Your task to perform on an android device: Search for seafood restaurants on Google Maps Image 0: 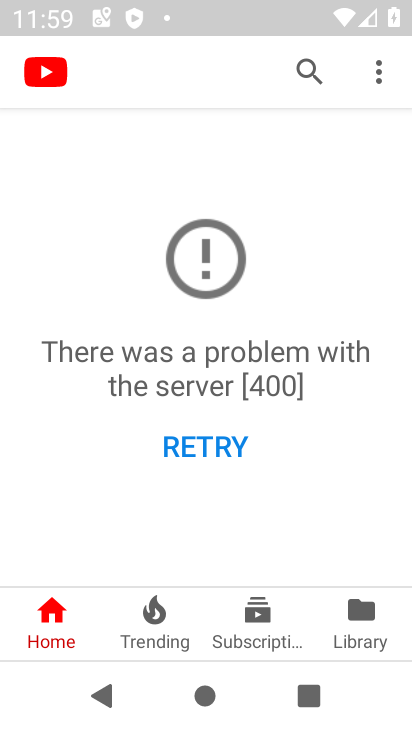
Step 0: press home button
Your task to perform on an android device: Search for seafood restaurants on Google Maps Image 1: 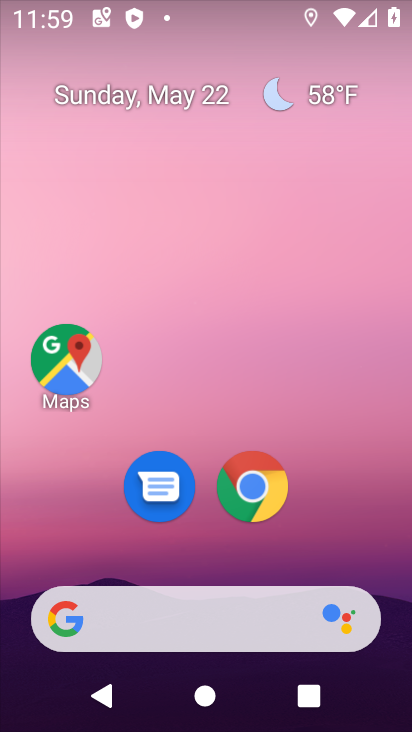
Step 1: click (61, 362)
Your task to perform on an android device: Search for seafood restaurants on Google Maps Image 2: 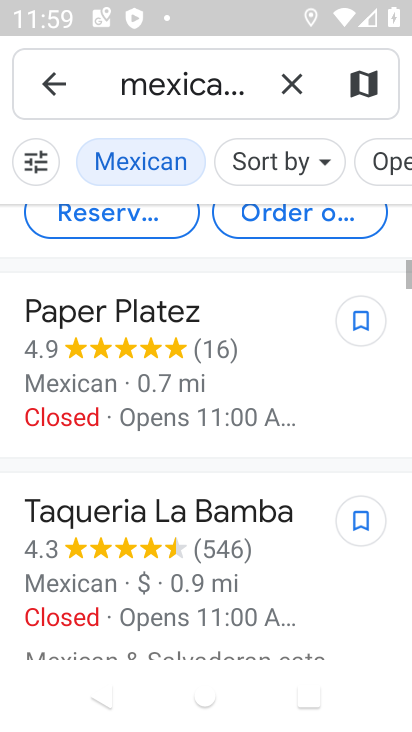
Step 2: click (285, 87)
Your task to perform on an android device: Search for seafood restaurants on Google Maps Image 3: 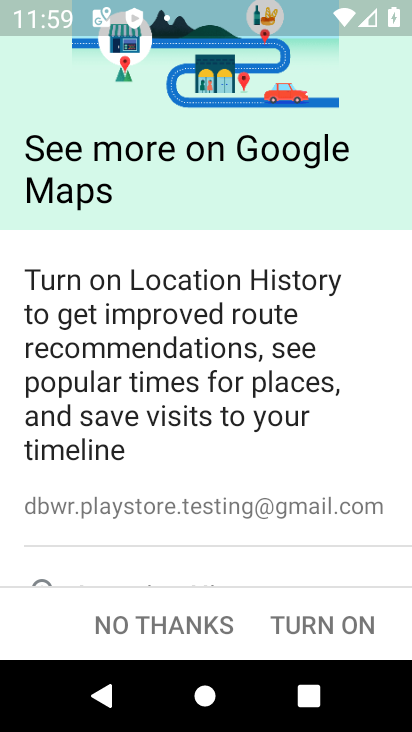
Step 3: click (186, 621)
Your task to perform on an android device: Search for seafood restaurants on Google Maps Image 4: 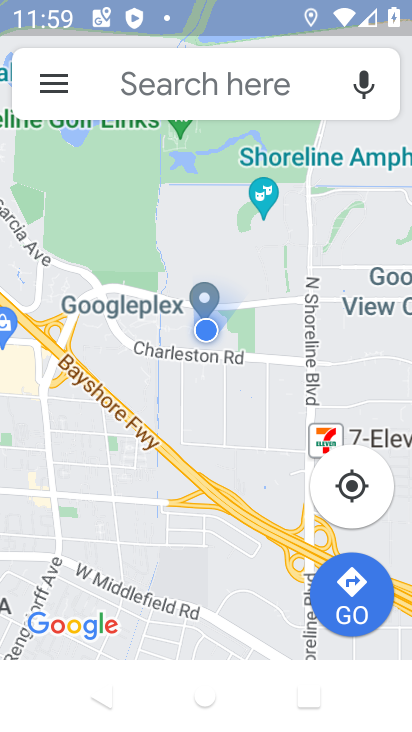
Step 4: click (155, 81)
Your task to perform on an android device: Search for seafood restaurants on Google Maps Image 5: 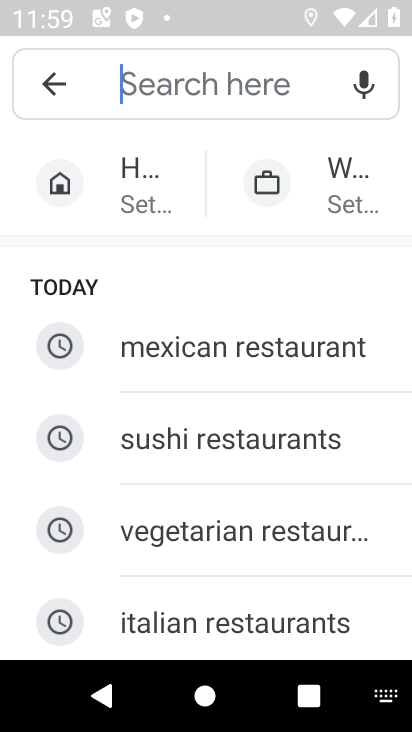
Step 5: type "seafood restaurants"
Your task to perform on an android device: Search for seafood restaurants on Google Maps Image 6: 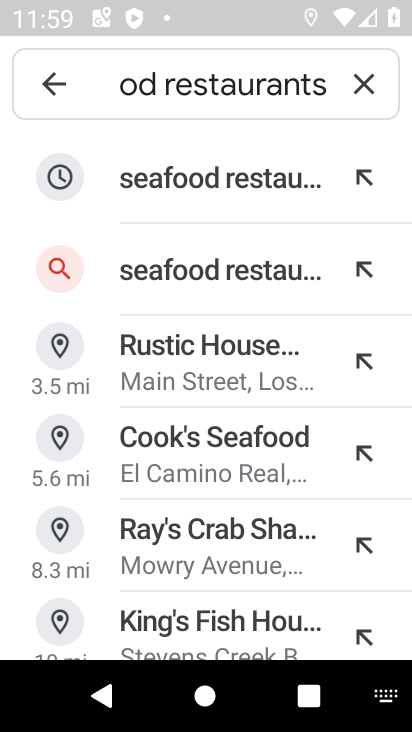
Step 6: click (162, 191)
Your task to perform on an android device: Search for seafood restaurants on Google Maps Image 7: 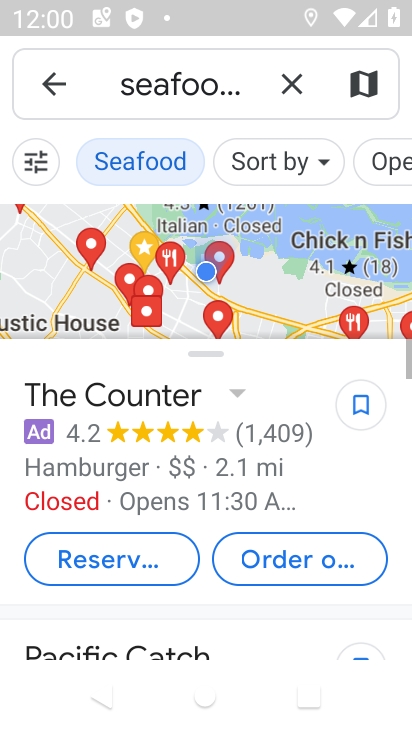
Step 7: task complete